Your task to perform on an android device: Show me the alarms in the clock app Image 0: 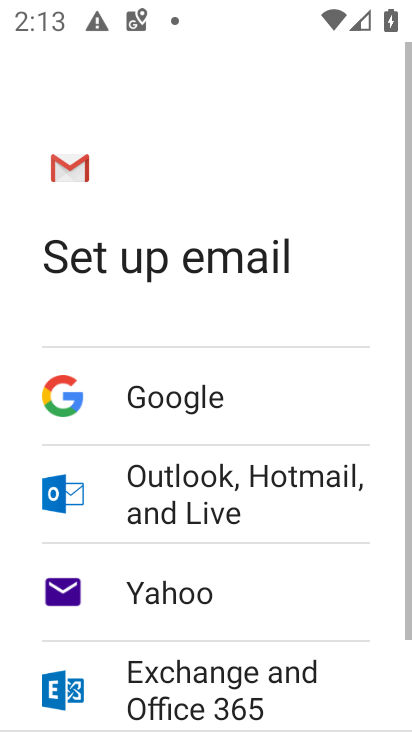
Step 0: press home button
Your task to perform on an android device: Show me the alarms in the clock app Image 1: 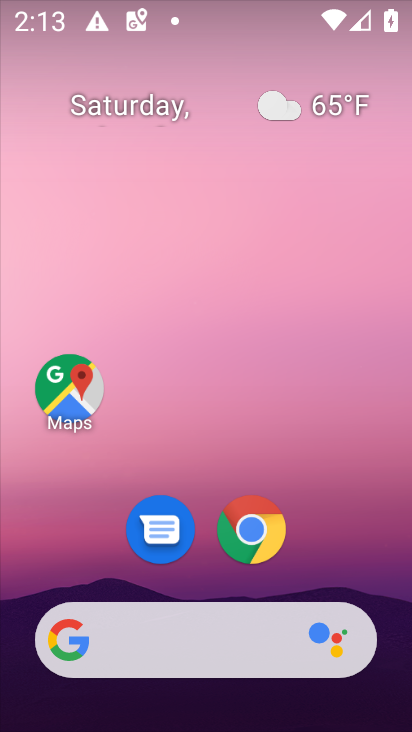
Step 1: drag from (381, 564) to (299, 196)
Your task to perform on an android device: Show me the alarms in the clock app Image 2: 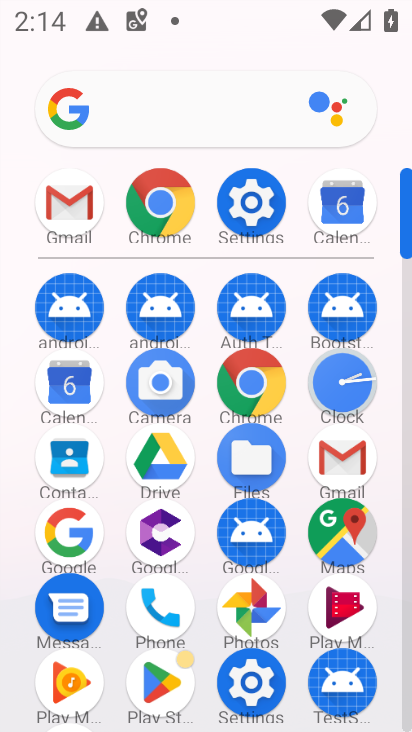
Step 2: click (331, 405)
Your task to perform on an android device: Show me the alarms in the clock app Image 3: 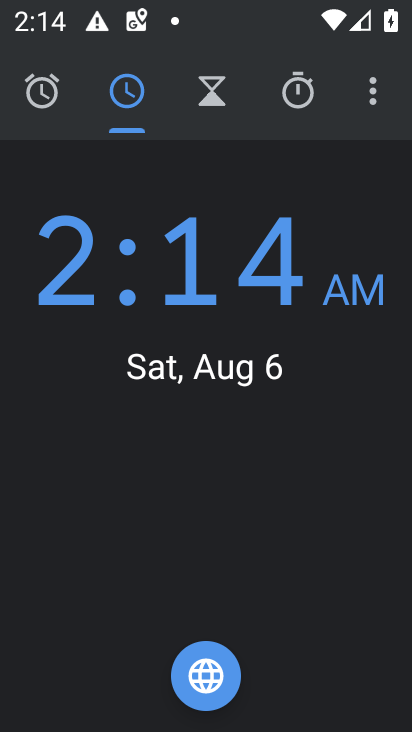
Step 3: click (55, 107)
Your task to perform on an android device: Show me the alarms in the clock app Image 4: 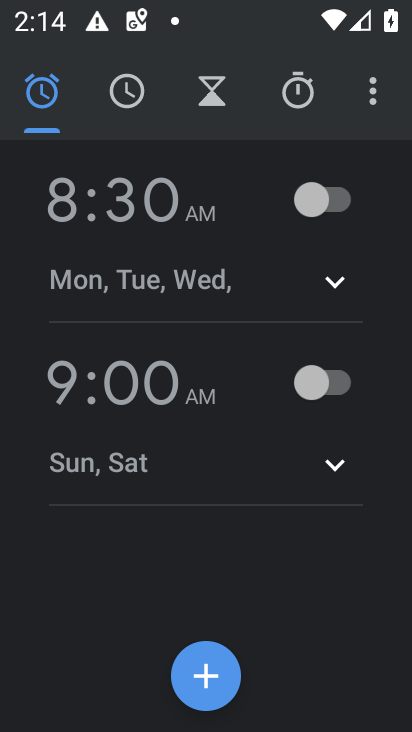
Step 4: task complete